Your task to perform on an android device: Open the calendar and show me this week's events? Image 0: 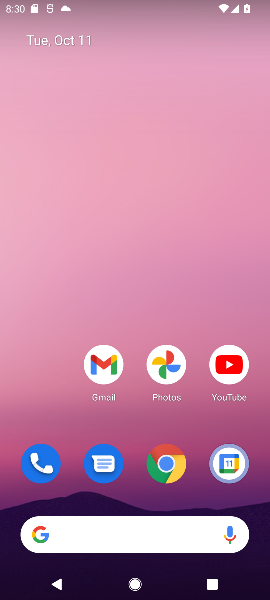
Step 0: drag from (105, 527) to (177, 126)
Your task to perform on an android device: Open the calendar and show me this week's events? Image 1: 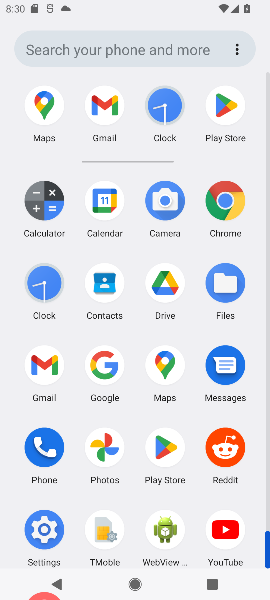
Step 1: click (105, 356)
Your task to perform on an android device: Open the calendar and show me this week's events? Image 2: 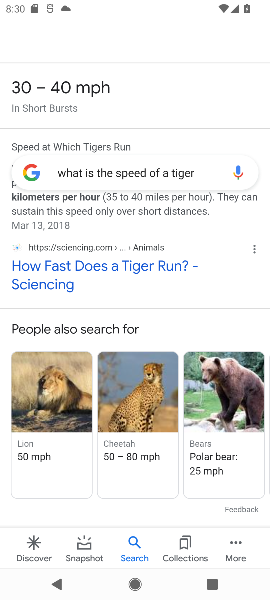
Step 2: click (92, 164)
Your task to perform on an android device: Open the calendar and show me this week's events? Image 3: 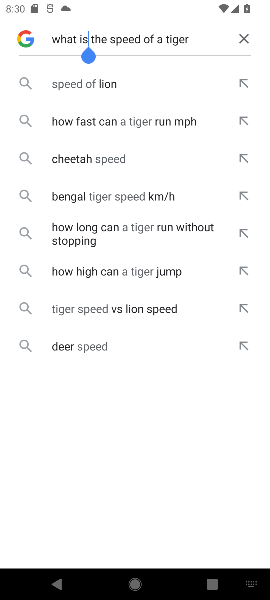
Step 3: click (246, 42)
Your task to perform on an android device: Open the calendar and show me this week's events? Image 4: 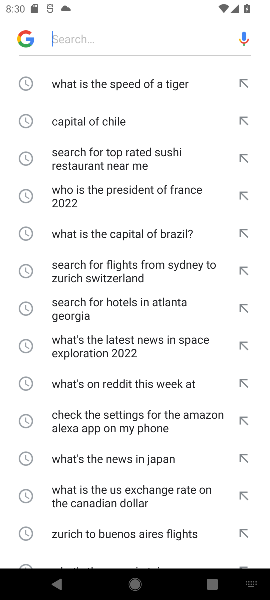
Step 4: click (113, 37)
Your task to perform on an android device: Open the calendar and show me this week's events? Image 5: 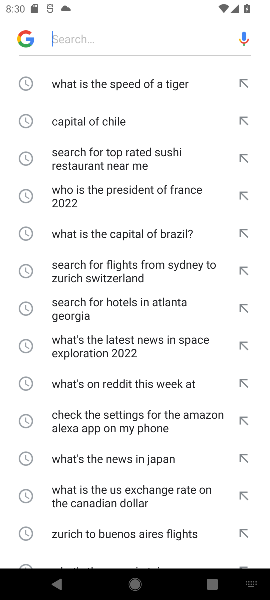
Step 5: type "Open the calendar and show me this week's events? "
Your task to perform on an android device: Open the calendar and show me this week's events? Image 6: 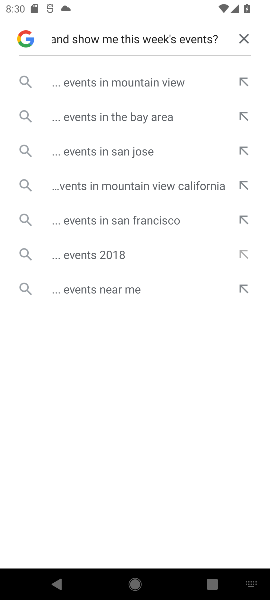
Step 6: click (127, 79)
Your task to perform on an android device: Open the calendar and show me this week's events? Image 7: 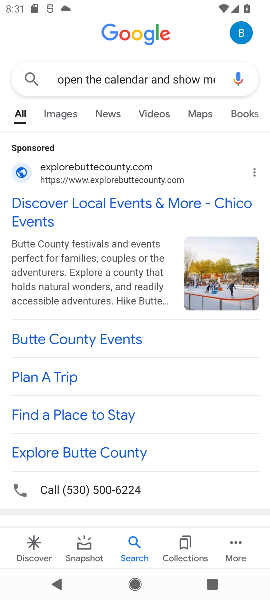
Step 7: press home button
Your task to perform on an android device: Open the calendar and show me this week's events? Image 8: 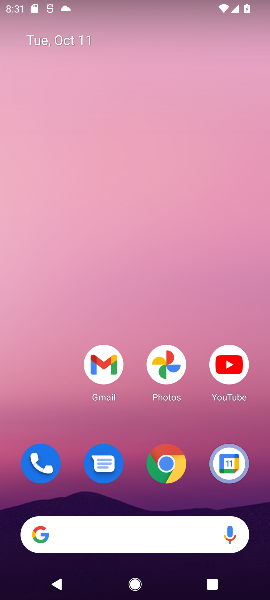
Step 8: drag from (81, 502) to (135, 129)
Your task to perform on an android device: Open the calendar and show me this week's events? Image 9: 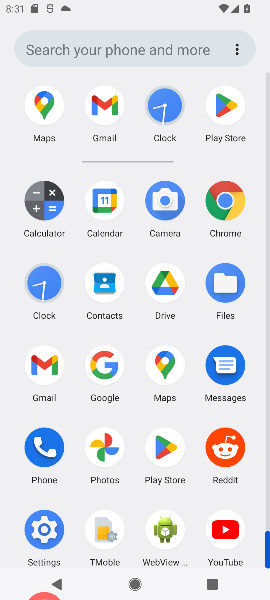
Step 9: click (102, 190)
Your task to perform on an android device: Open the calendar and show me this week's events? Image 10: 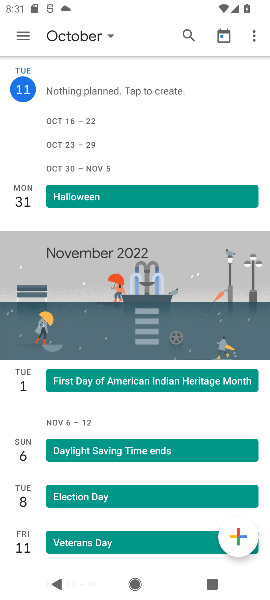
Step 10: click (24, 31)
Your task to perform on an android device: Open the calendar and show me this week's events? Image 11: 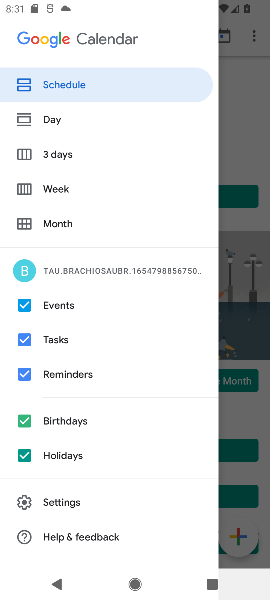
Step 11: click (63, 296)
Your task to perform on an android device: Open the calendar and show me this week's events? Image 12: 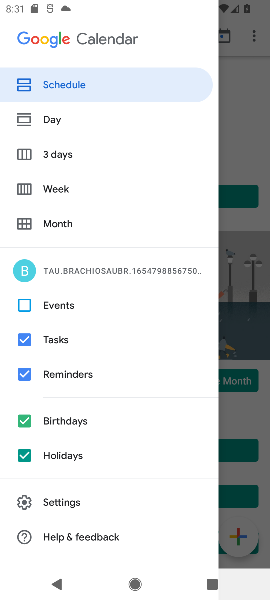
Step 12: click (67, 311)
Your task to perform on an android device: Open the calendar and show me this week's events? Image 13: 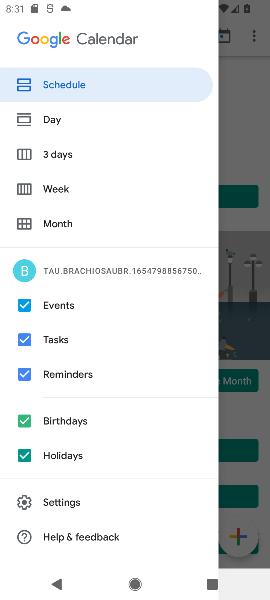
Step 13: click (249, 176)
Your task to perform on an android device: Open the calendar and show me this week's events? Image 14: 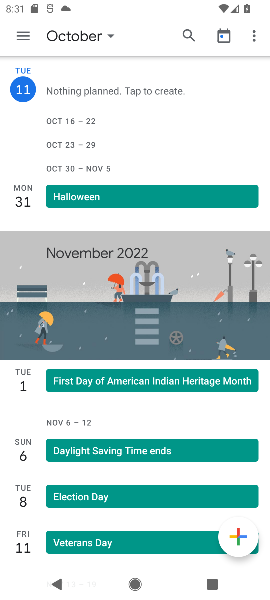
Step 14: task complete